Your task to perform on an android device: Open battery settings Image 0: 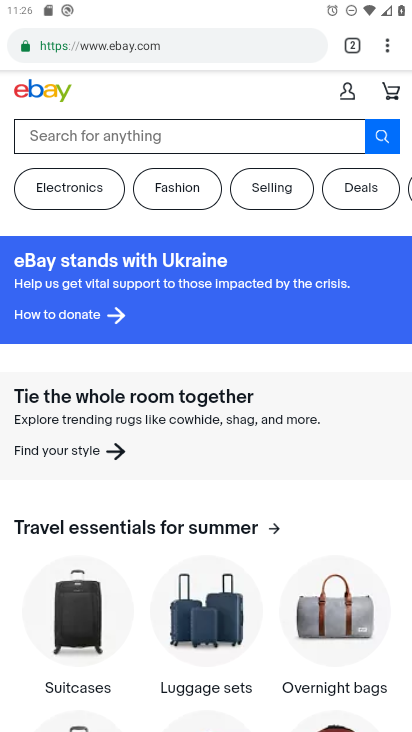
Step 0: press home button
Your task to perform on an android device: Open battery settings Image 1: 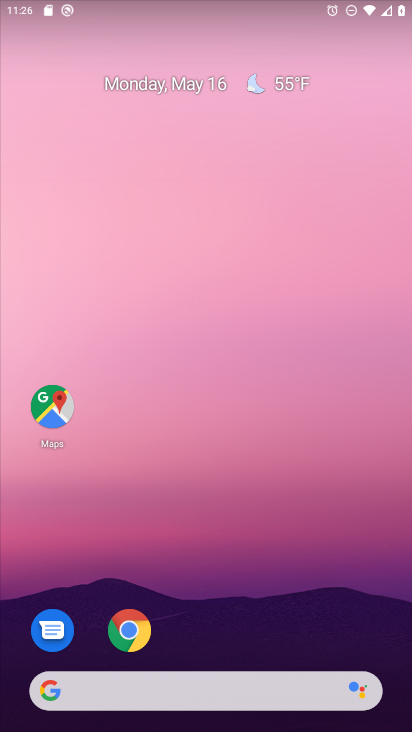
Step 1: drag from (180, 630) to (180, 182)
Your task to perform on an android device: Open battery settings Image 2: 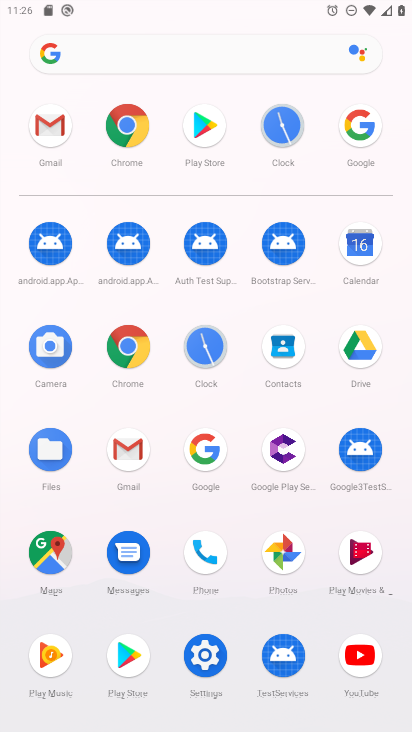
Step 2: click (220, 645)
Your task to perform on an android device: Open battery settings Image 3: 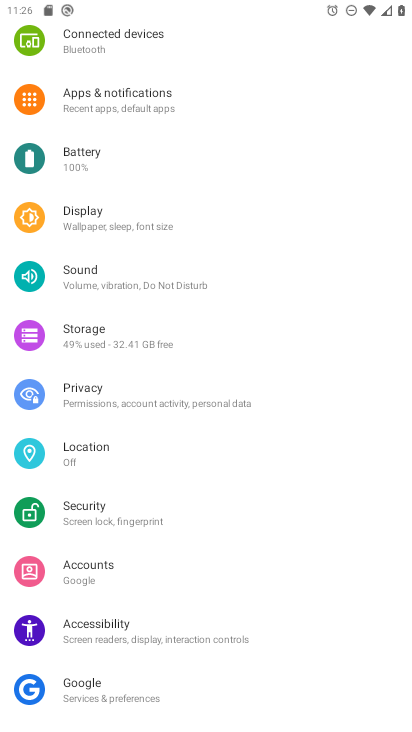
Step 3: click (122, 162)
Your task to perform on an android device: Open battery settings Image 4: 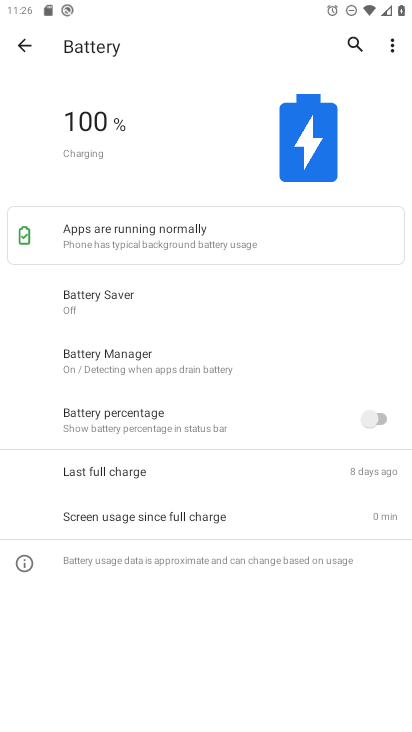
Step 4: task complete